Your task to perform on an android device: Go to Yahoo.com Image 0: 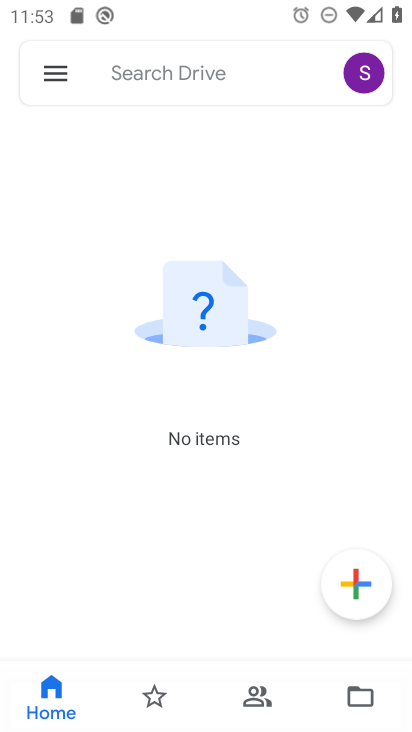
Step 0: press home button
Your task to perform on an android device: Go to Yahoo.com Image 1: 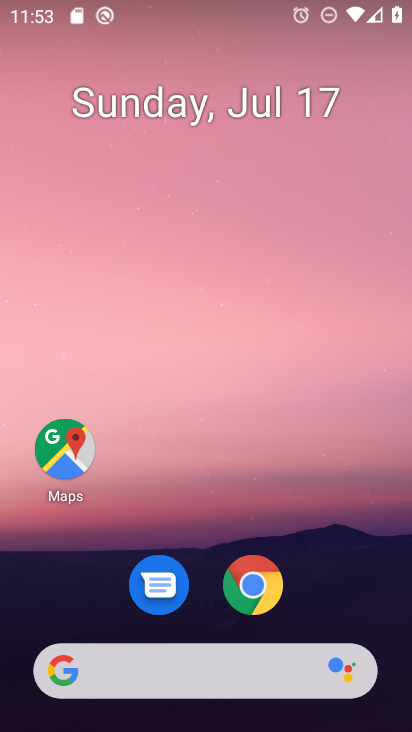
Step 1: click (226, 672)
Your task to perform on an android device: Go to Yahoo.com Image 2: 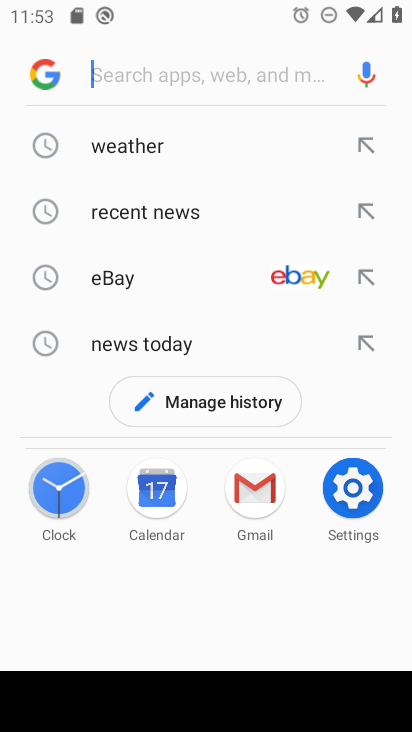
Step 2: type "yahoo.com"
Your task to perform on an android device: Go to Yahoo.com Image 3: 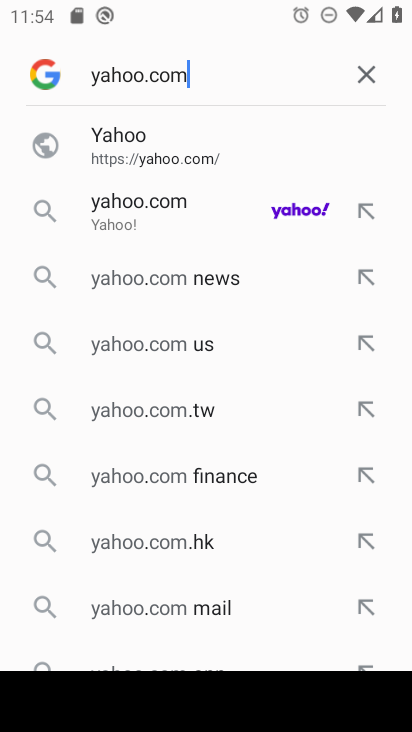
Step 3: click (318, 214)
Your task to perform on an android device: Go to Yahoo.com Image 4: 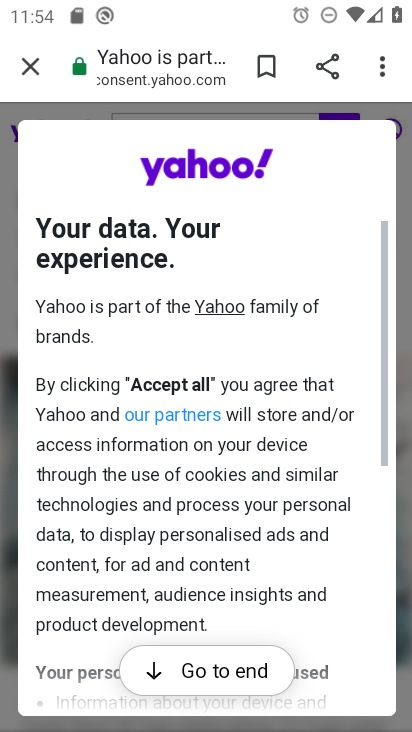
Step 4: click (251, 666)
Your task to perform on an android device: Go to Yahoo.com Image 5: 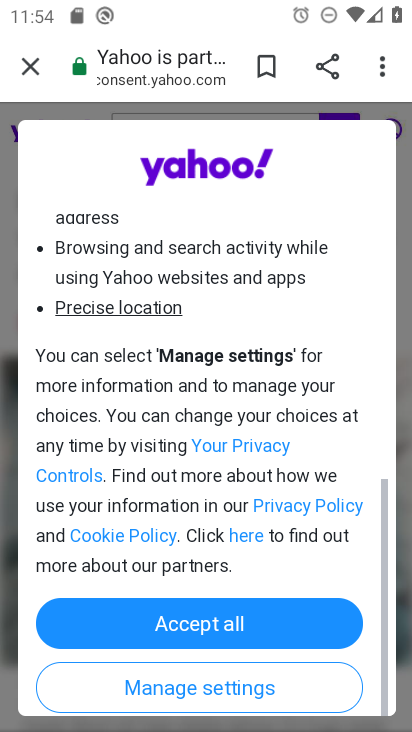
Step 5: click (259, 633)
Your task to perform on an android device: Go to Yahoo.com Image 6: 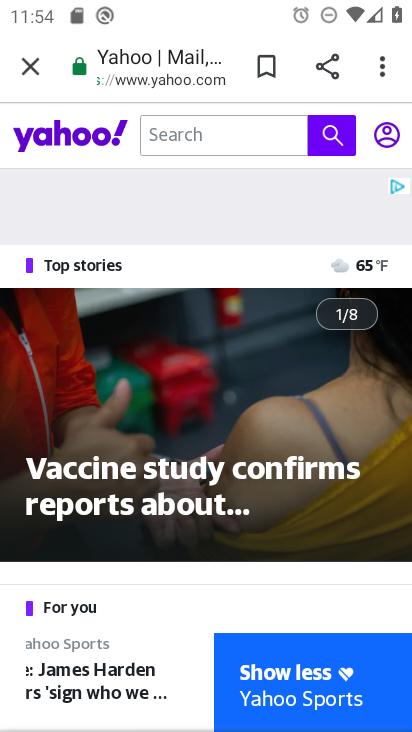
Step 6: drag from (259, 625) to (288, 183)
Your task to perform on an android device: Go to Yahoo.com Image 7: 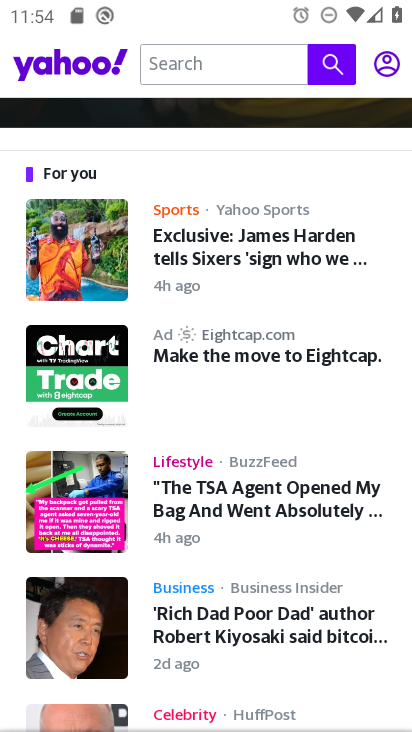
Step 7: drag from (278, 568) to (275, 318)
Your task to perform on an android device: Go to Yahoo.com Image 8: 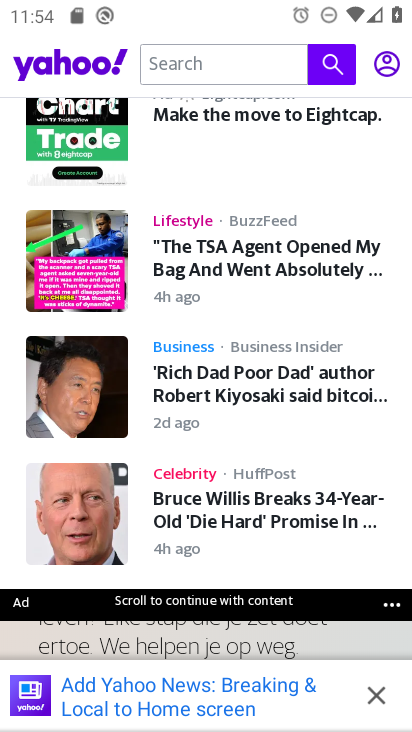
Step 8: click (271, 386)
Your task to perform on an android device: Go to Yahoo.com Image 9: 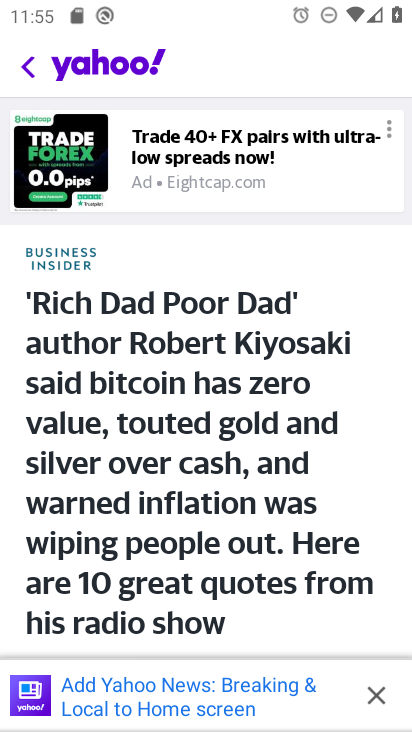
Step 9: task complete